Your task to perform on an android device: allow cookies in the chrome app Image 0: 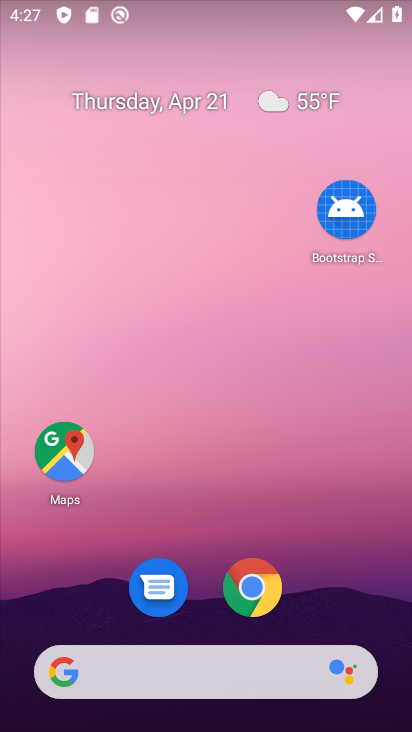
Step 0: drag from (282, 582) to (286, 69)
Your task to perform on an android device: allow cookies in the chrome app Image 1: 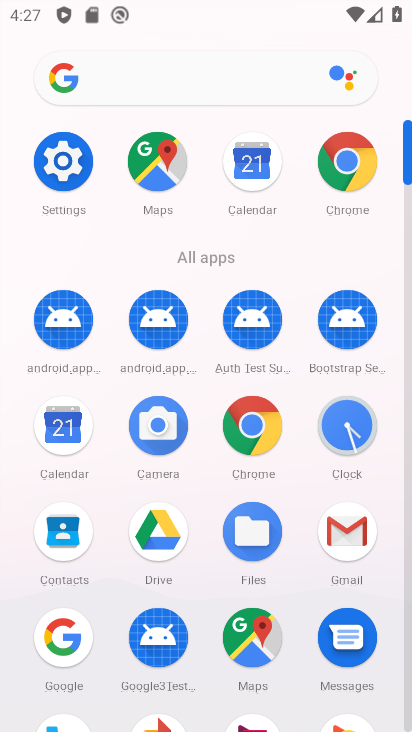
Step 1: click (252, 430)
Your task to perform on an android device: allow cookies in the chrome app Image 2: 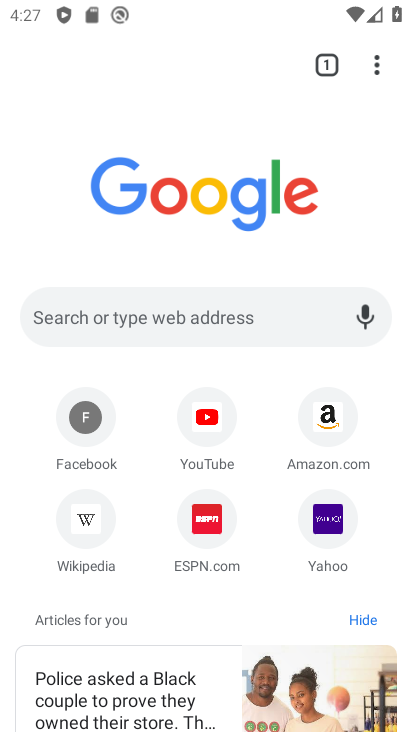
Step 2: click (376, 71)
Your task to perform on an android device: allow cookies in the chrome app Image 3: 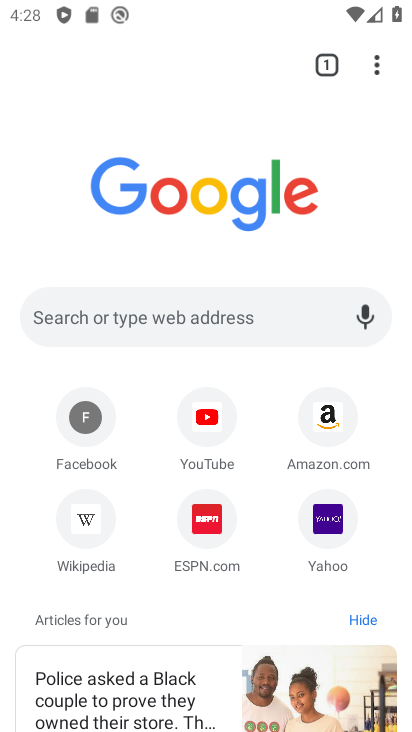
Step 3: drag from (376, 71) to (150, 551)
Your task to perform on an android device: allow cookies in the chrome app Image 4: 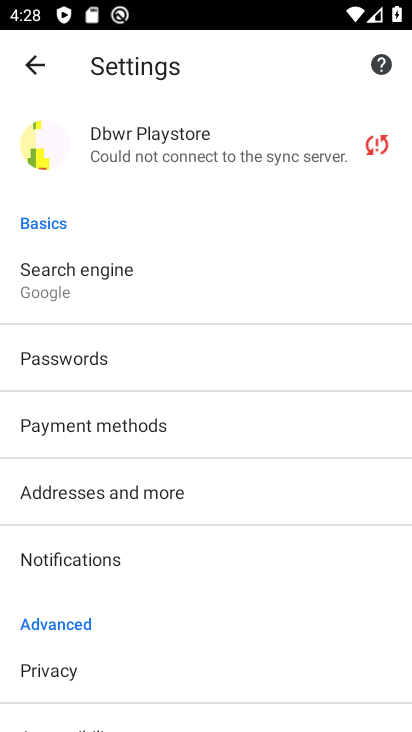
Step 4: drag from (178, 657) to (228, 270)
Your task to perform on an android device: allow cookies in the chrome app Image 5: 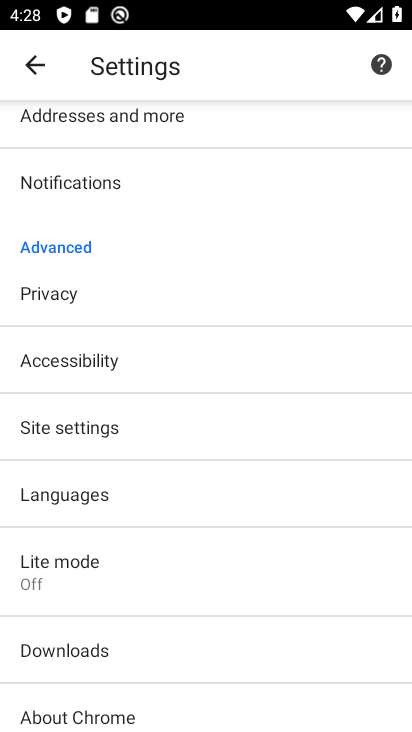
Step 5: click (98, 437)
Your task to perform on an android device: allow cookies in the chrome app Image 6: 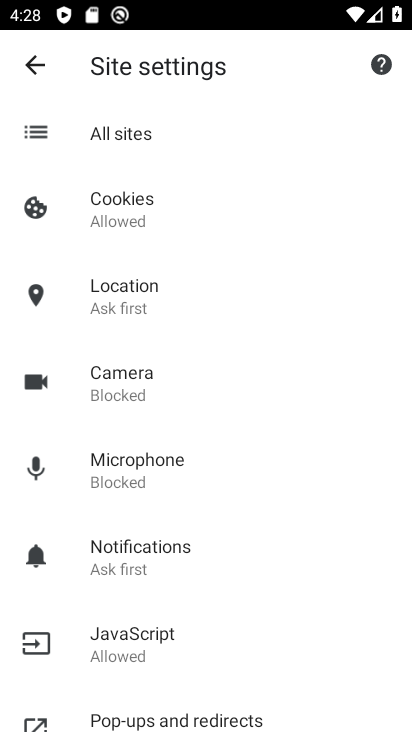
Step 6: click (121, 199)
Your task to perform on an android device: allow cookies in the chrome app Image 7: 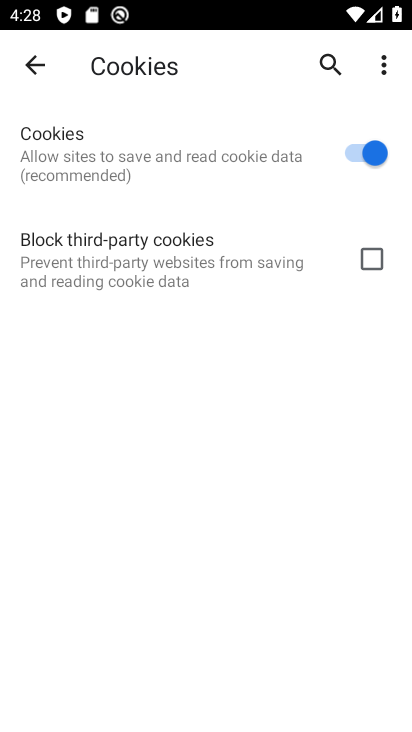
Step 7: task complete